Your task to perform on an android device: open chrome and create a bookmark for the current page Image 0: 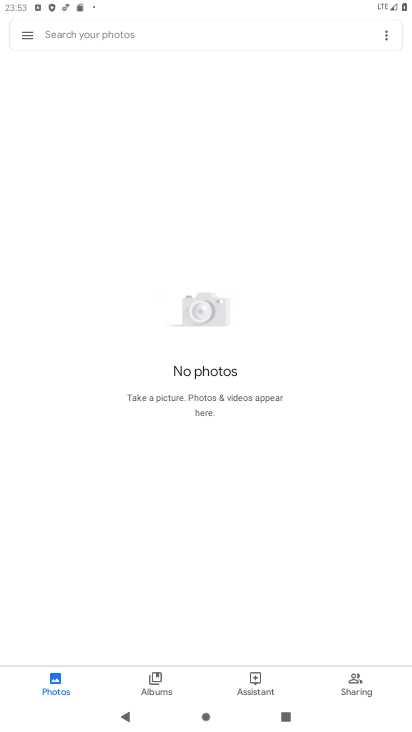
Step 0: press home button
Your task to perform on an android device: open chrome and create a bookmark for the current page Image 1: 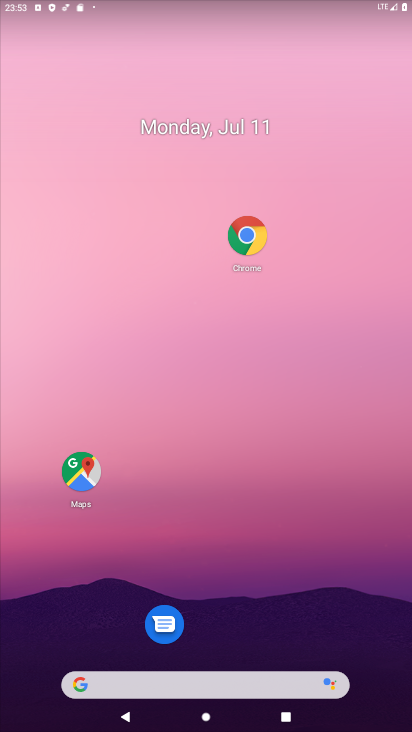
Step 1: click (250, 249)
Your task to perform on an android device: open chrome and create a bookmark for the current page Image 2: 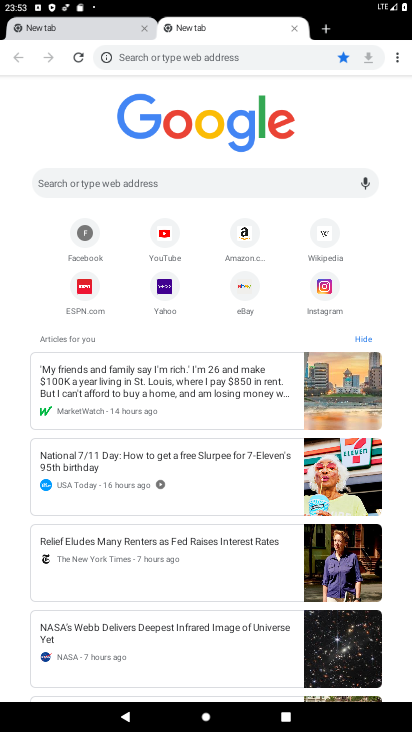
Step 2: click (117, 496)
Your task to perform on an android device: open chrome and create a bookmark for the current page Image 3: 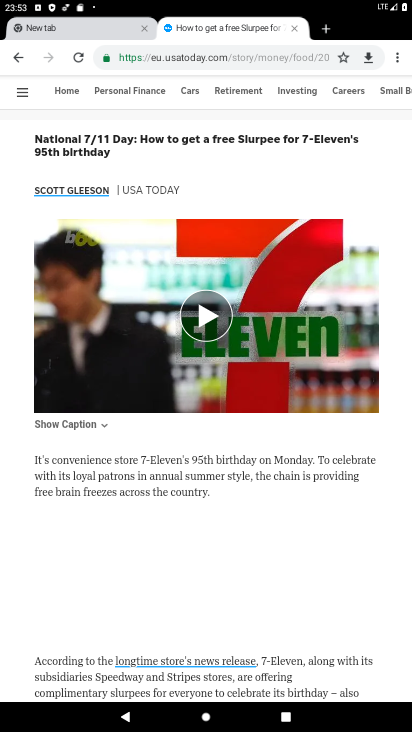
Step 3: click (347, 61)
Your task to perform on an android device: open chrome and create a bookmark for the current page Image 4: 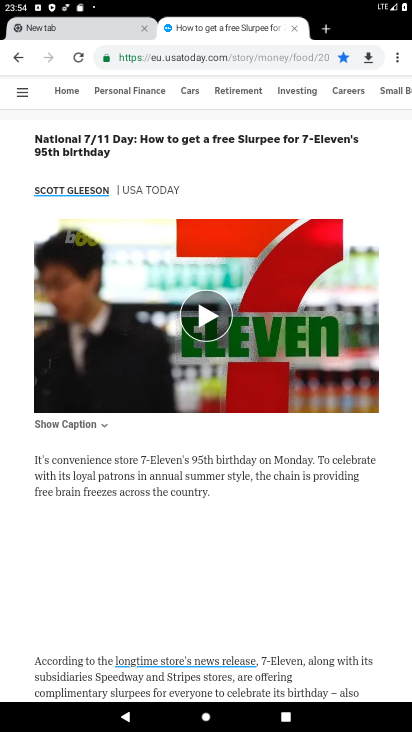
Step 4: task complete